Your task to perform on an android device: Open wifi settings Image 0: 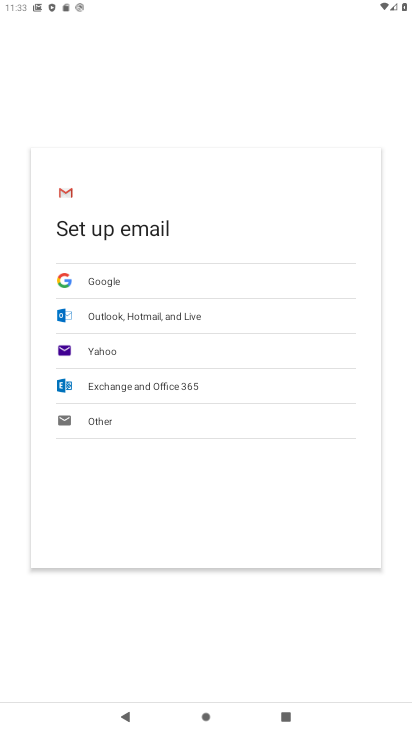
Step 0: press home button
Your task to perform on an android device: Open wifi settings Image 1: 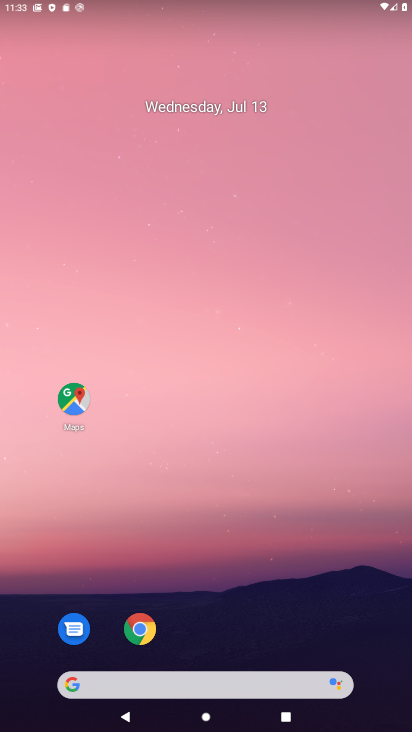
Step 1: drag from (189, 642) to (218, 19)
Your task to perform on an android device: Open wifi settings Image 2: 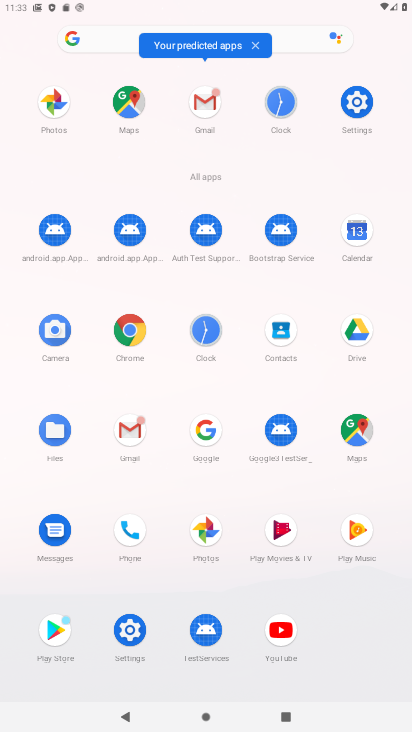
Step 2: click (136, 621)
Your task to perform on an android device: Open wifi settings Image 3: 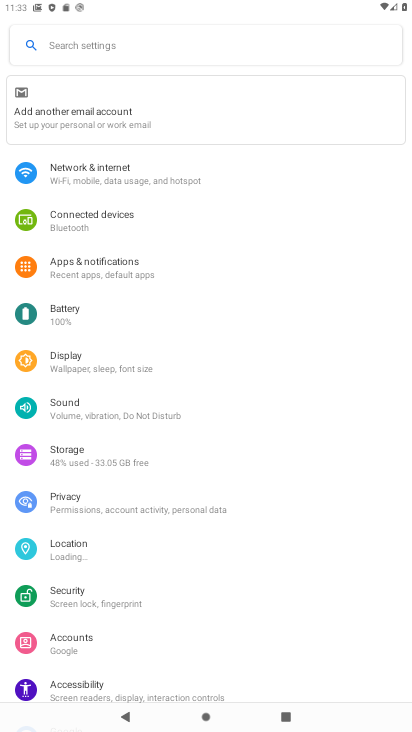
Step 3: click (113, 167)
Your task to perform on an android device: Open wifi settings Image 4: 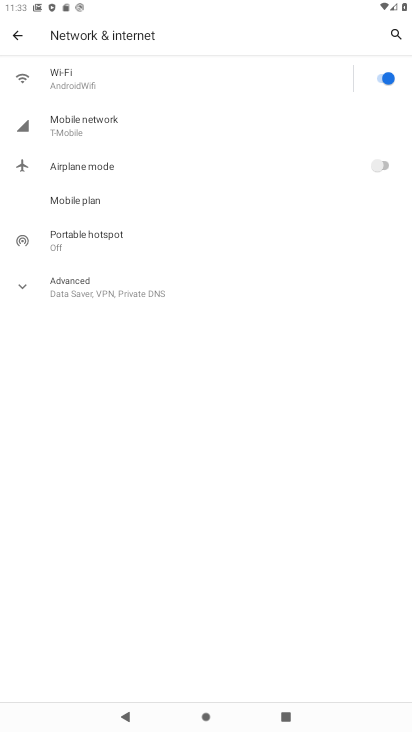
Step 4: click (84, 84)
Your task to perform on an android device: Open wifi settings Image 5: 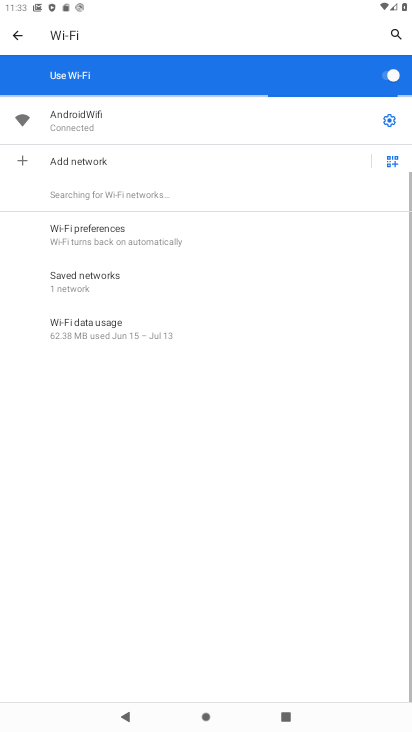
Step 5: task complete